Your task to perform on an android device: toggle show notifications on the lock screen Image 0: 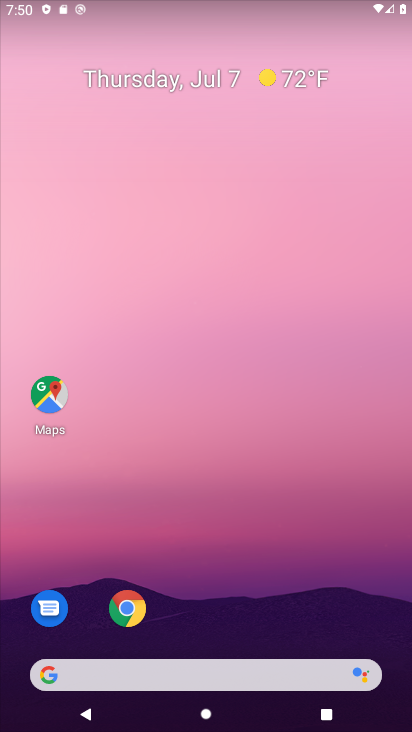
Step 0: drag from (387, 633) to (306, 64)
Your task to perform on an android device: toggle show notifications on the lock screen Image 1: 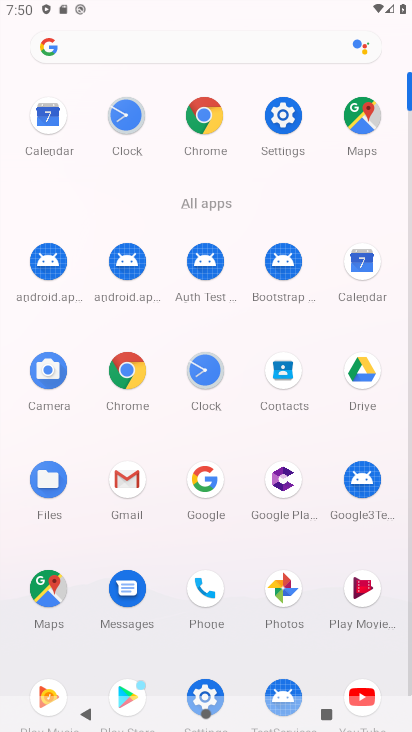
Step 1: click (264, 112)
Your task to perform on an android device: toggle show notifications on the lock screen Image 2: 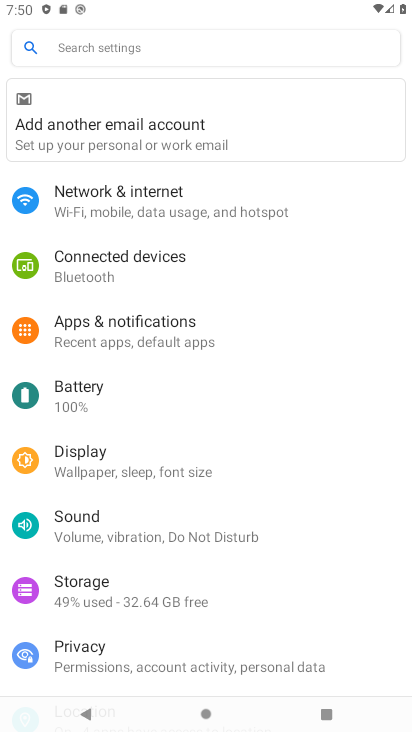
Step 2: click (113, 331)
Your task to perform on an android device: toggle show notifications on the lock screen Image 3: 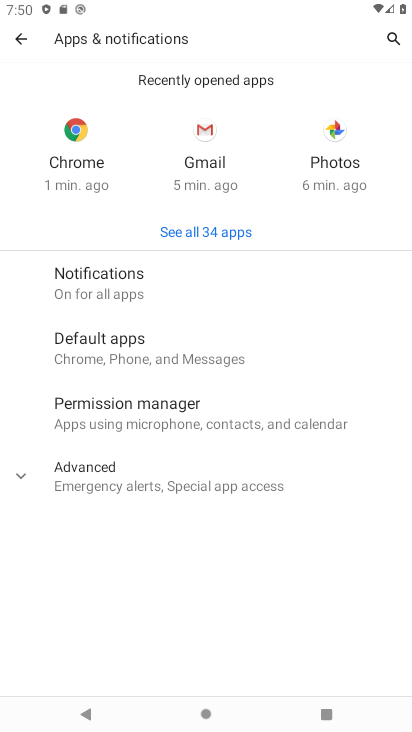
Step 3: click (99, 286)
Your task to perform on an android device: toggle show notifications on the lock screen Image 4: 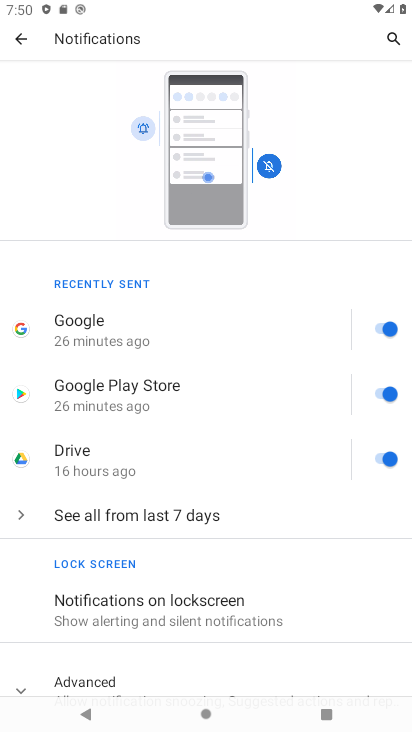
Step 4: click (109, 611)
Your task to perform on an android device: toggle show notifications on the lock screen Image 5: 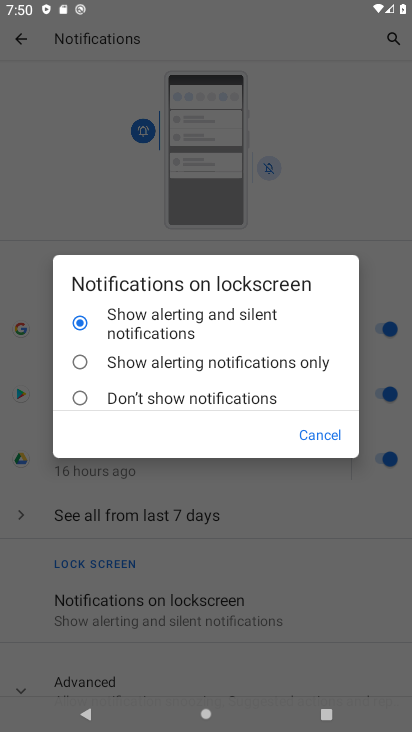
Step 5: click (85, 355)
Your task to perform on an android device: toggle show notifications on the lock screen Image 6: 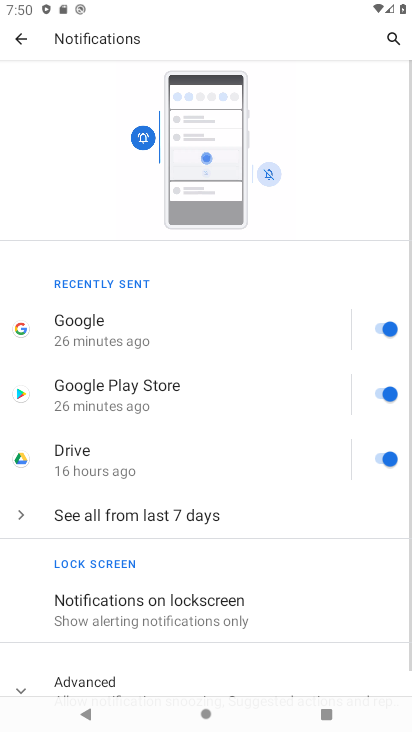
Step 6: task complete